Your task to perform on an android device: stop showing notifications on the lock screen Image 0: 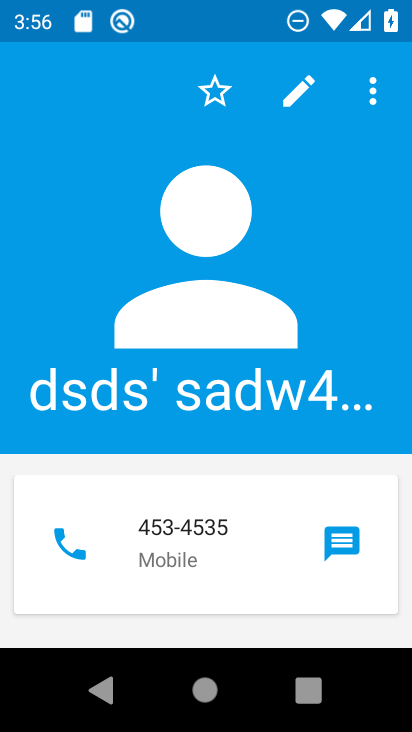
Step 0: press home button
Your task to perform on an android device: stop showing notifications on the lock screen Image 1: 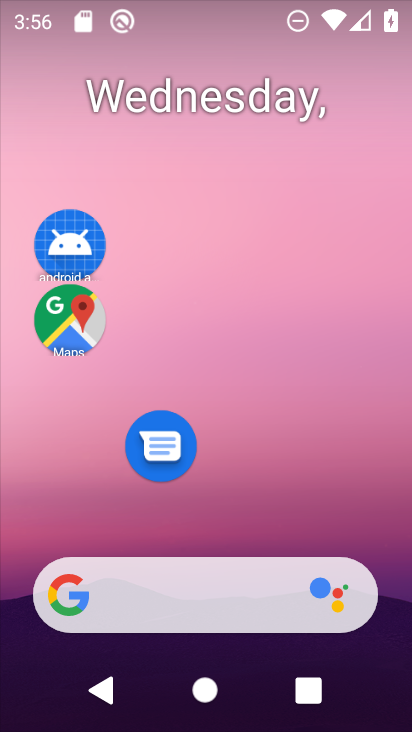
Step 1: drag from (339, 508) to (280, 44)
Your task to perform on an android device: stop showing notifications on the lock screen Image 2: 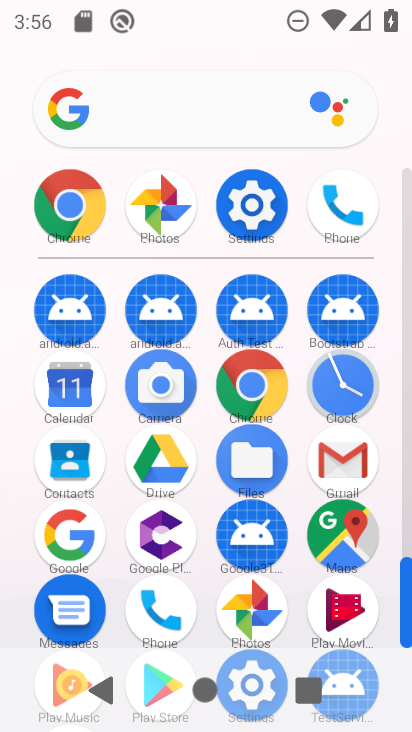
Step 2: drag from (406, 638) to (385, 728)
Your task to perform on an android device: stop showing notifications on the lock screen Image 3: 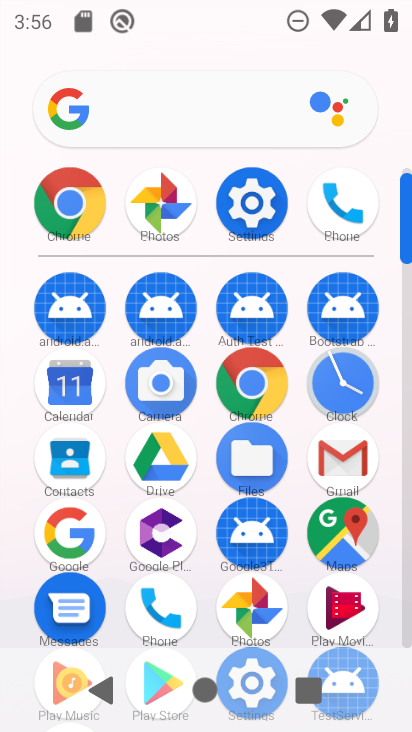
Step 3: click (408, 634)
Your task to perform on an android device: stop showing notifications on the lock screen Image 4: 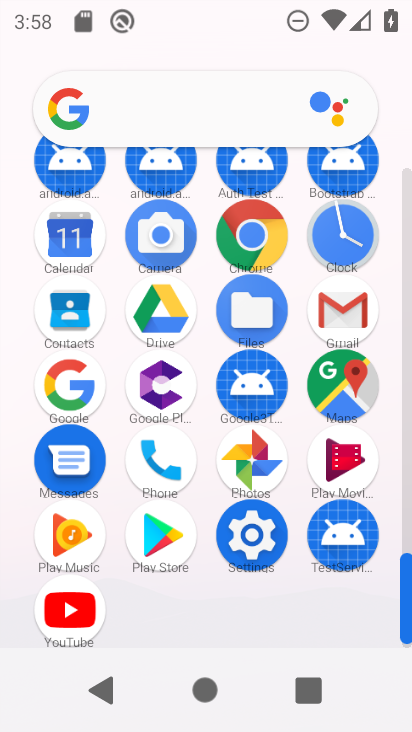
Step 4: click (251, 571)
Your task to perform on an android device: stop showing notifications on the lock screen Image 5: 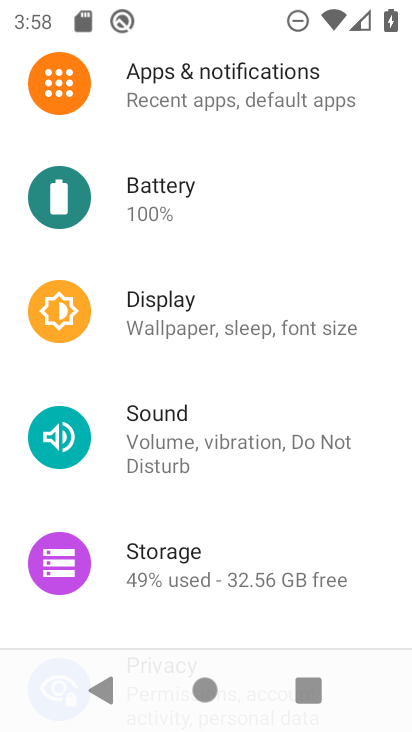
Step 5: drag from (190, 252) to (199, 479)
Your task to perform on an android device: stop showing notifications on the lock screen Image 6: 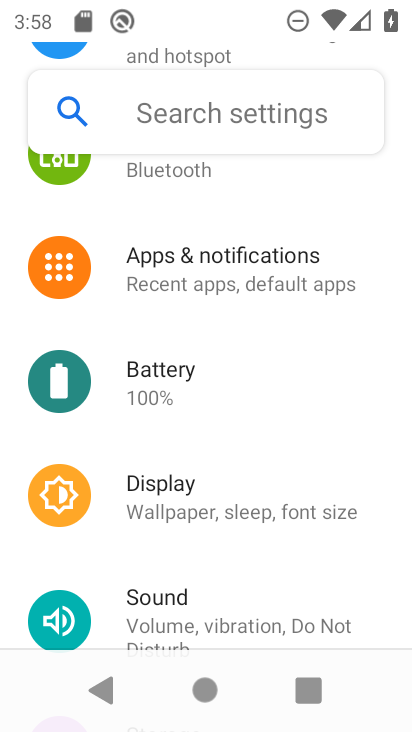
Step 6: drag from (205, 364) to (238, 594)
Your task to perform on an android device: stop showing notifications on the lock screen Image 7: 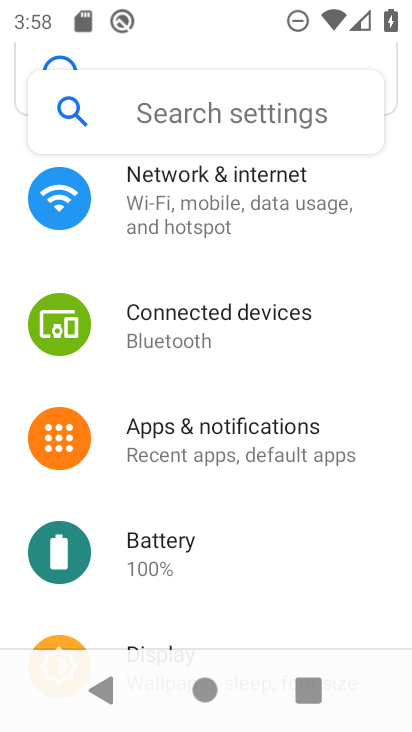
Step 7: drag from (270, 553) to (290, 257)
Your task to perform on an android device: stop showing notifications on the lock screen Image 8: 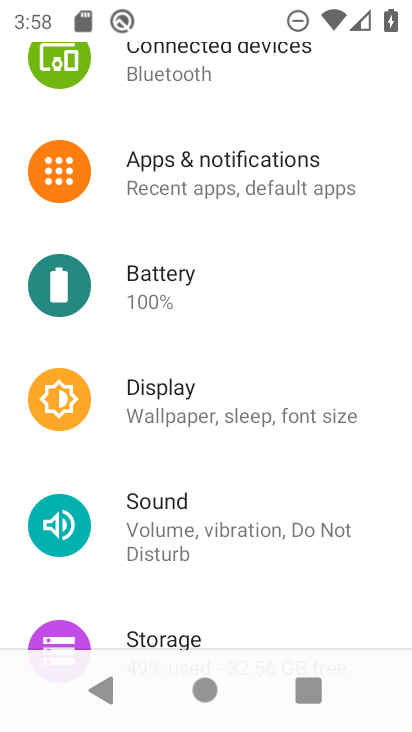
Step 8: drag from (305, 455) to (305, 316)
Your task to perform on an android device: stop showing notifications on the lock screen Image 9: 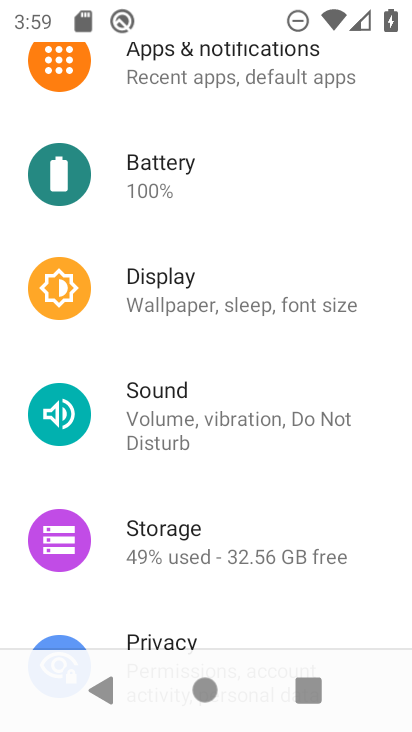
Step 9: click (242, 106)
Your task to perform on an android device: stop showing notifications on the lock screen Image 10: 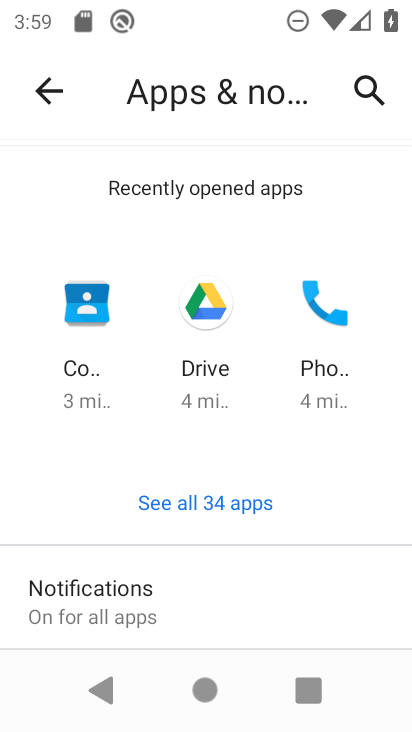
Step 10: click (177, 620)
Your task to perform on an android device: stop showing notifications on the lock screen Image 11: 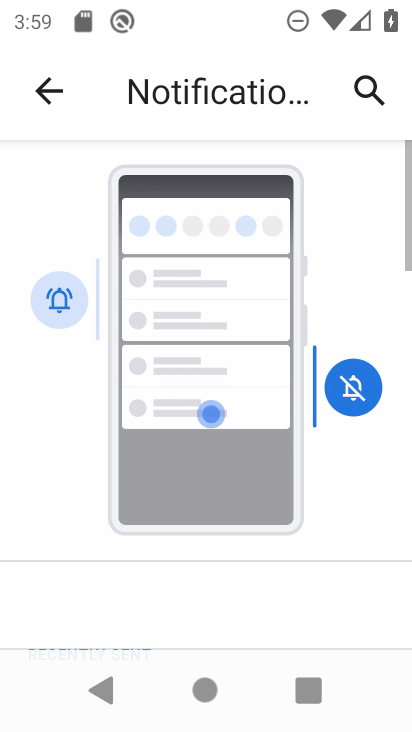
Step 11: drag from (203, 572) to (213, 30)
Your task to perform on an android device: stop showing notifications on the lock screen Image 12: 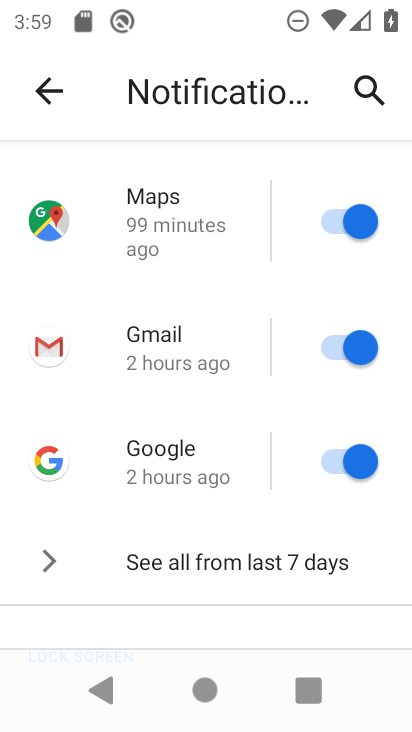
Step 12: drag from (182, 525) to (209, 32)
Your task to perform on an android device: stop showing notifications on the lock screen Image 13: 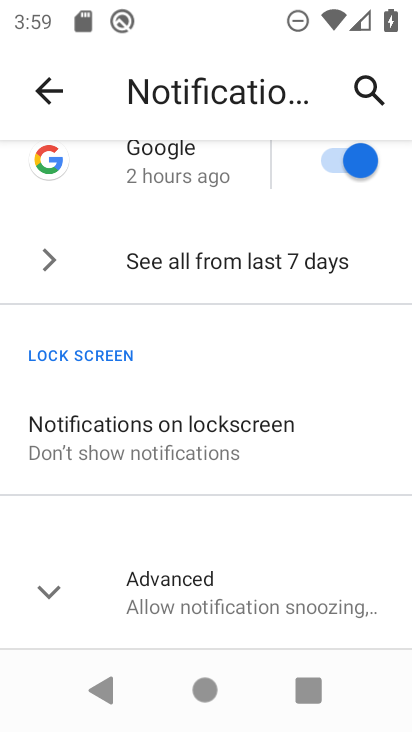
Step 13: click (183, 587)
Your task to perform on an android device: stop showing notifications on the lock screen Image 14: 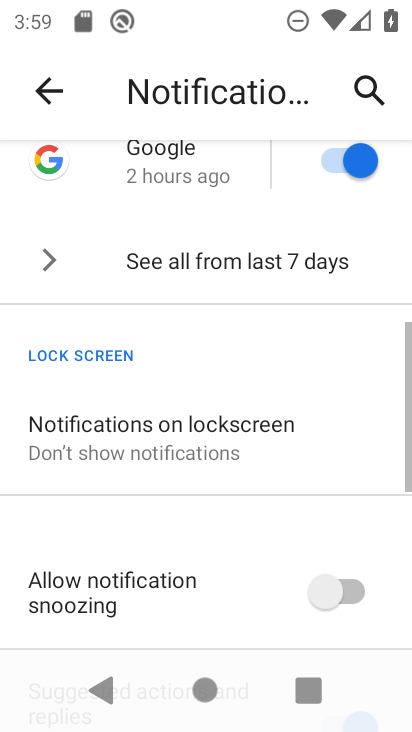
Step 14: click (221, 468)
Your task to perform on an android device: stop showing notifications on the lock screen Image 15: 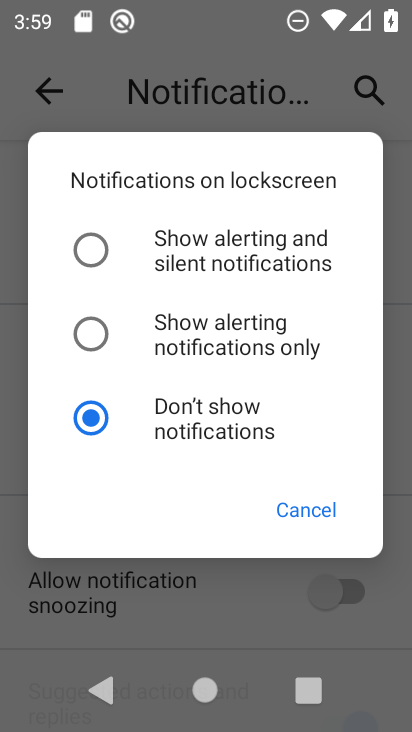
Step 15: task complete